Your task to perform on an android device: Open sound settings Image 0: 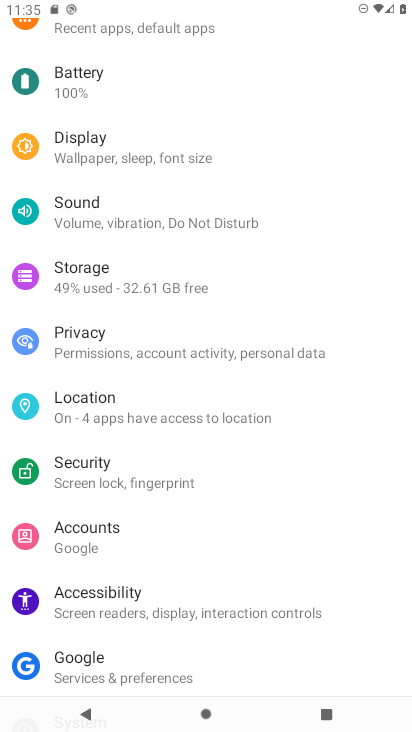
Step 0: click (201, 214)
Your task to perform on an android device: Open sound settings Image 1: 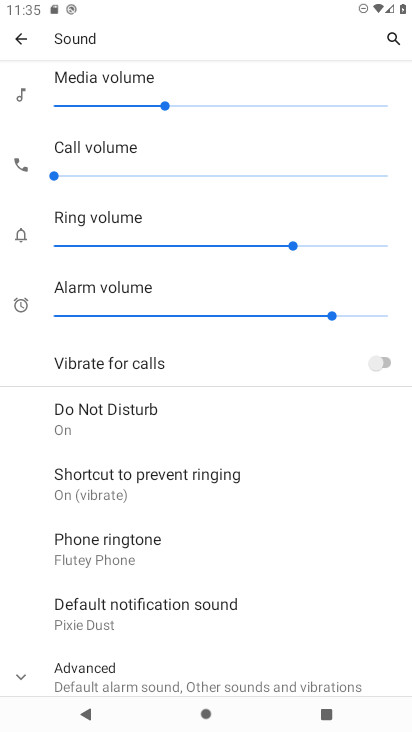
Step 1: task complete